Your task to perform on an android device: Open eBay Image 0: 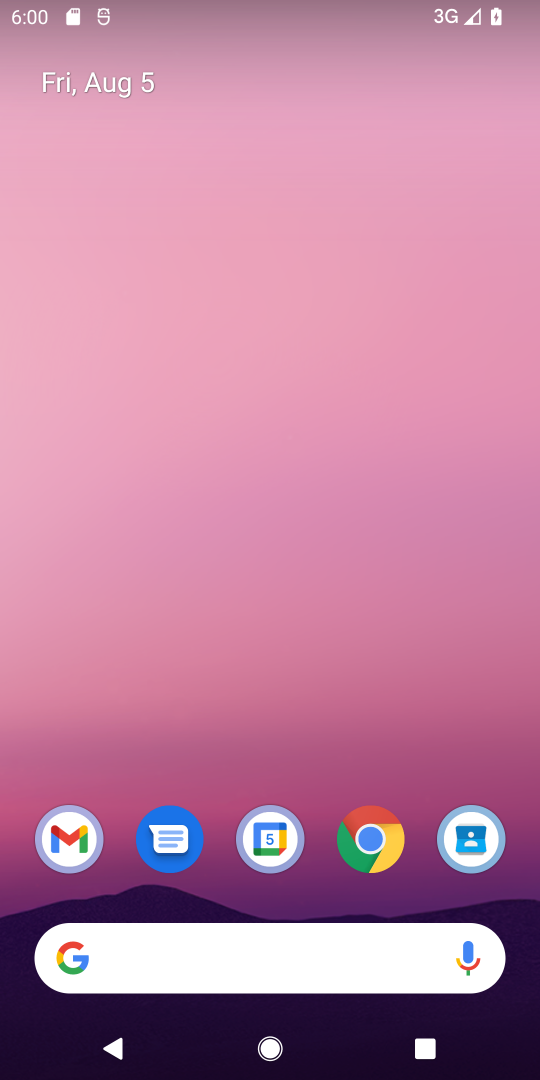
Step 0: click (350, 851)
Your task to perform on an android device: Open eBay Image 1: 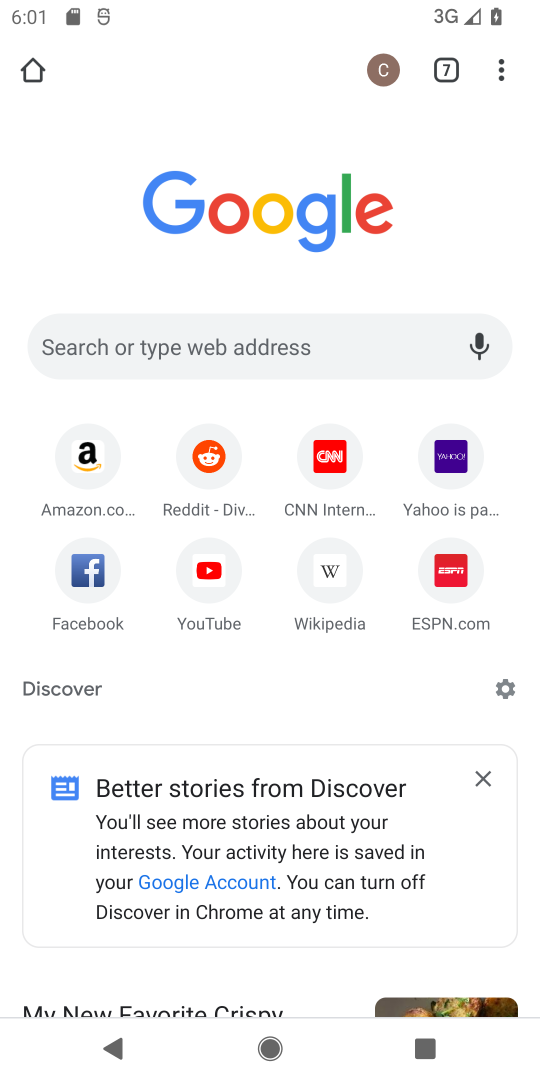
Step 1: click (185, 360)
Your task to perform on an android device: Open eBay Image 2: 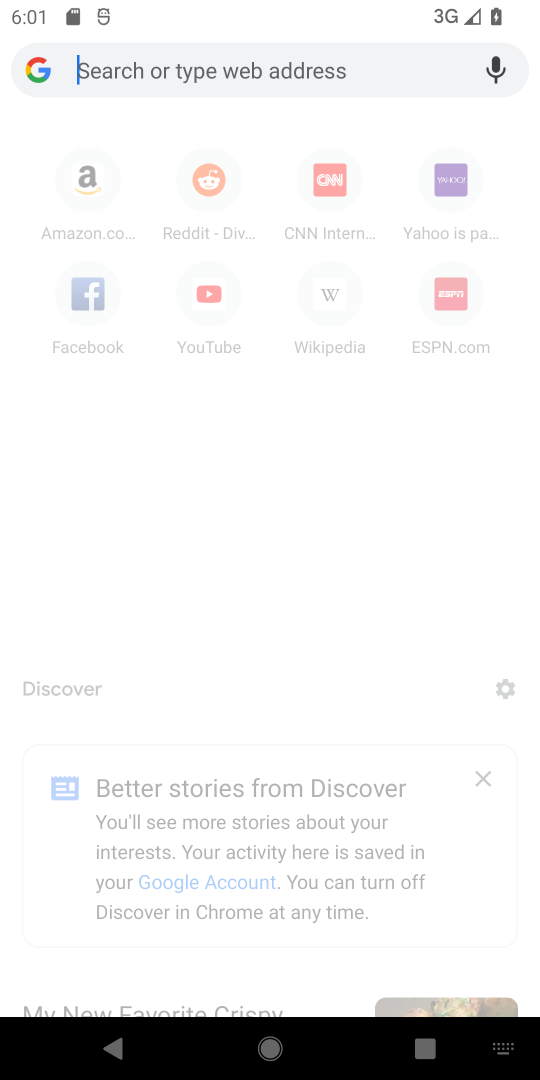
Step 2: type "eBay"
Your task to perform on an android device: Open eBay Image 3: 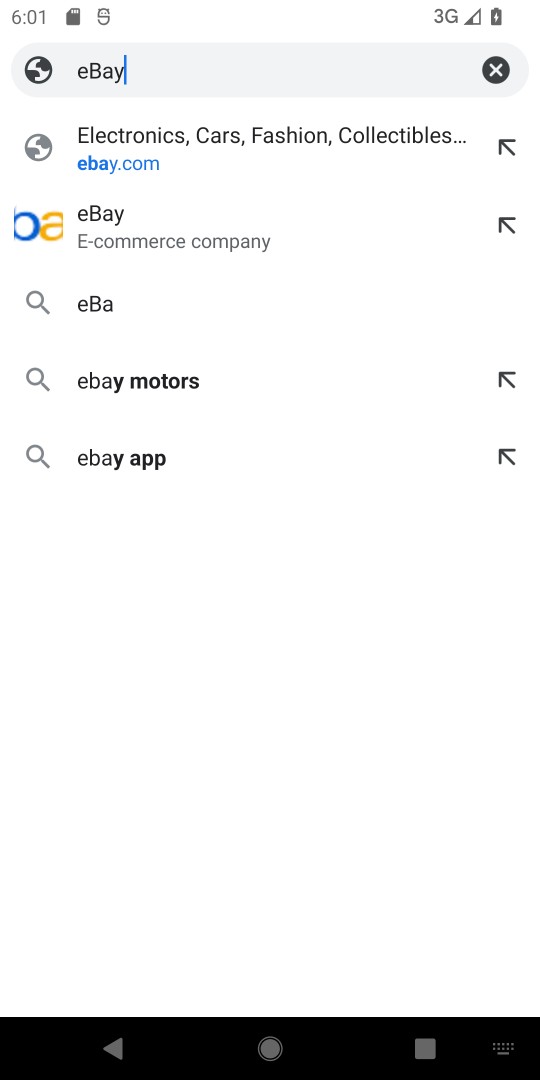
Step 3: type ""
Your task to perform on an android device: Open eBay Image 4: 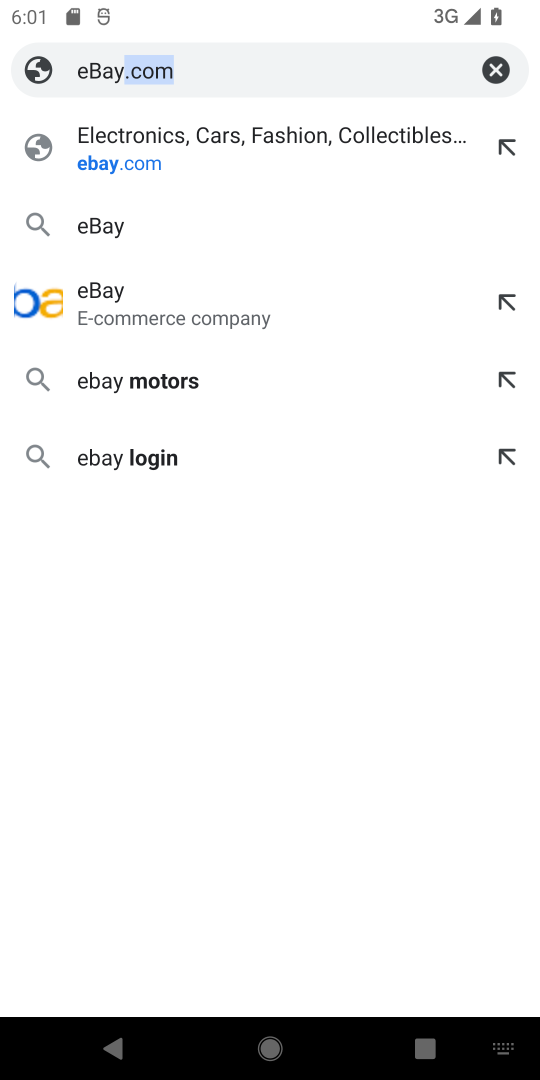
Step 4: click (161, 165)
Your task to perform on an android device: Open eBay Image 5: 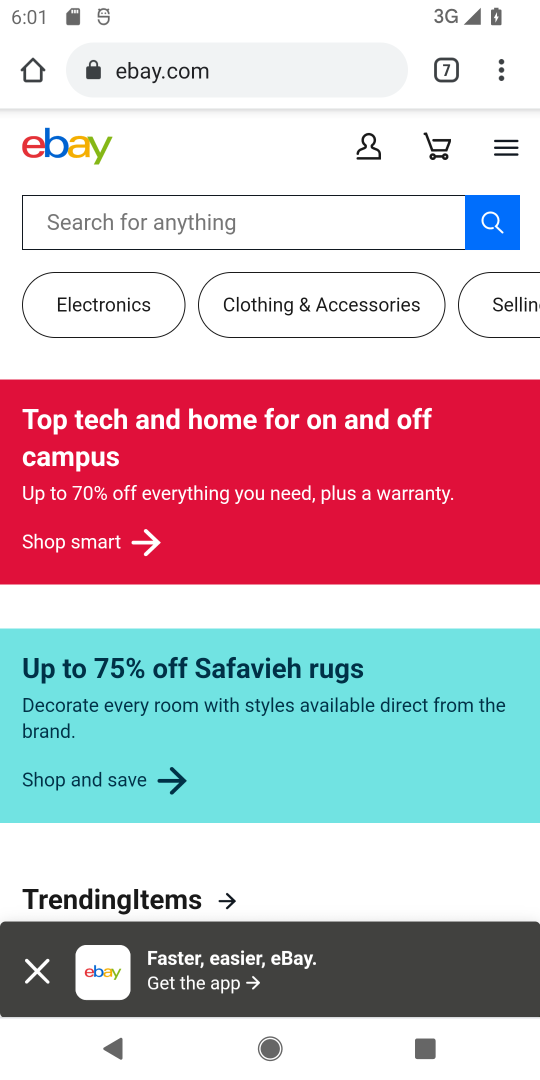
Step 5: task complete